Your task to perform on an android device: delete the emails in spam in the gmail app Image 0: 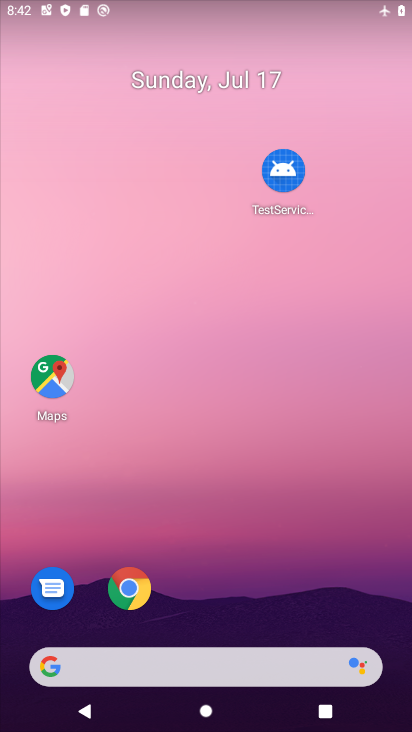
Step 0: drag from (279, 625) to (377, 0)
Your task to perform on an android device: delete the emails in spam in the gmail app Image 1: 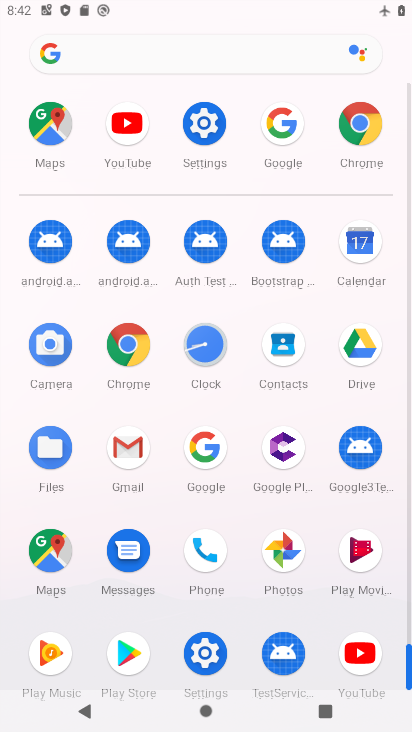
Step 1: click (134, 464)
Your task to perform on an android device: delete the emails in spam in the gmail app Image 2: 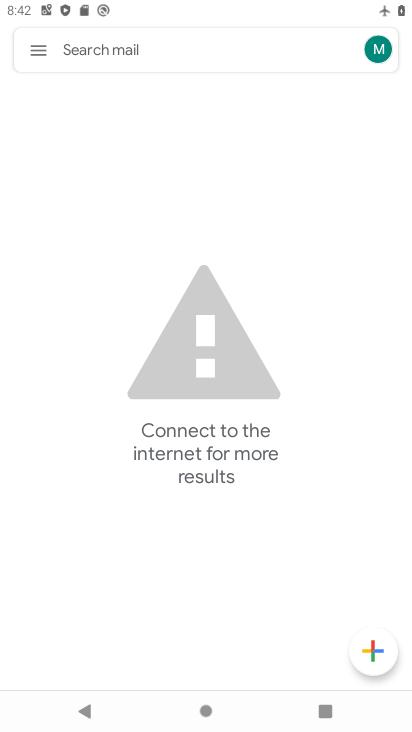
Step 2: click (38, 65)
Your task to perform on an android device: delete the emails in spam in the gmail app Image 3: 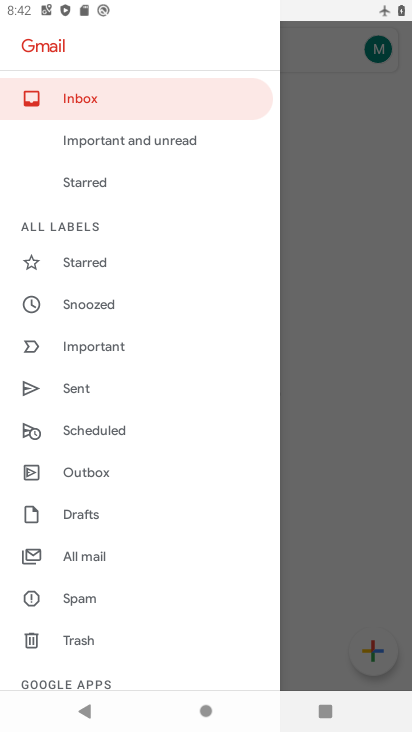
Step 3: click (71, 609)
Your task to perform on an android device: delete the emails in spam in the gmail app Image 4: 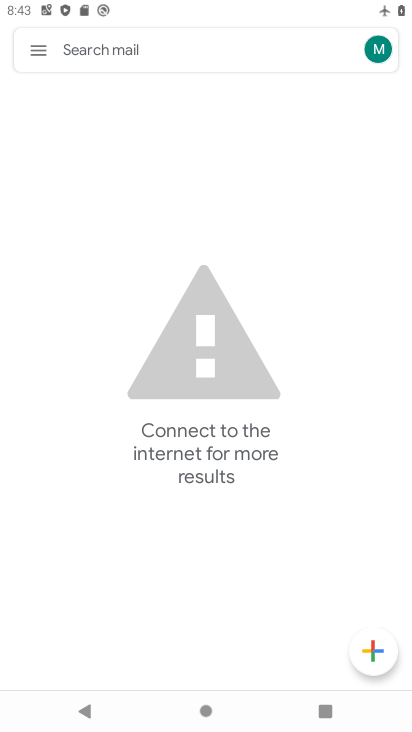
Step 4: drag from (196, 395) to (221, 223)
Your task to perform on an android device: delete the emails in spam in the gmail app Image 5: 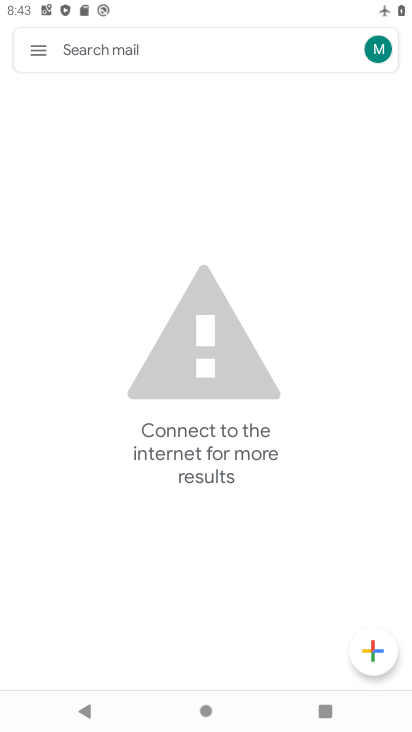
Step 5: click (43, 53)
Your task to perform on an android device: delete the emails in spam in the gmail app Image 6: 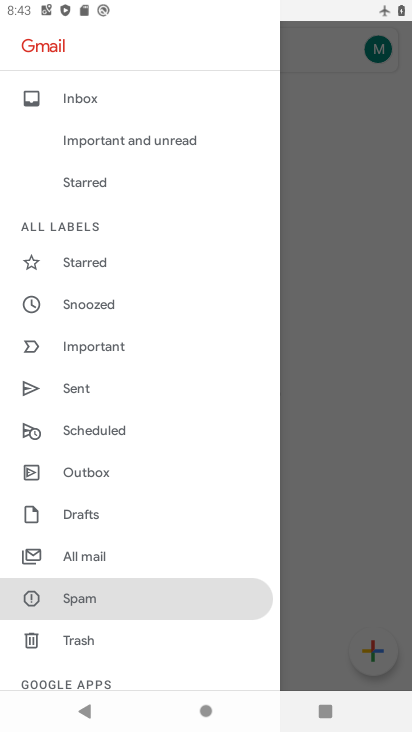
Step 6: task complete